Your task to perform on an android device: check storage Image 0: 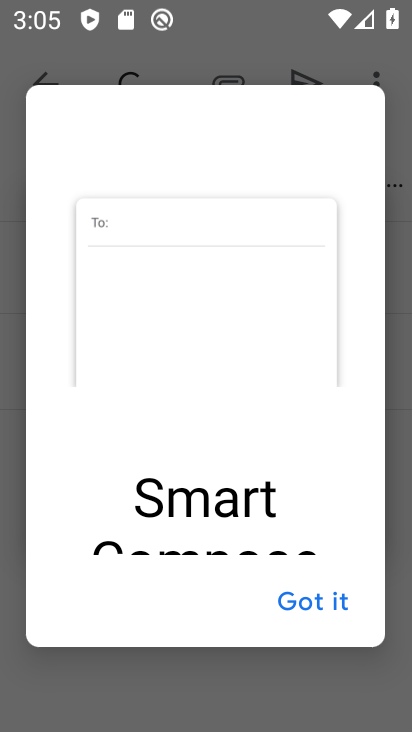
Step 0: press home button
Your task to perform on an android device: check storage Image 1: 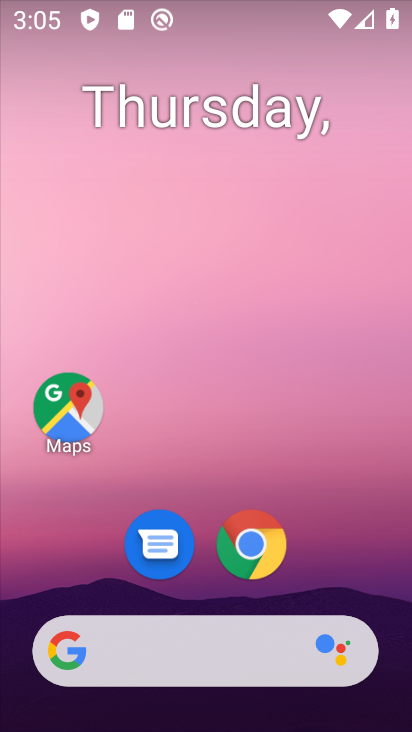
Step 1: drag from (333, 601) to (341, 15)
Your task to perform on an android device: check storage Image 2: 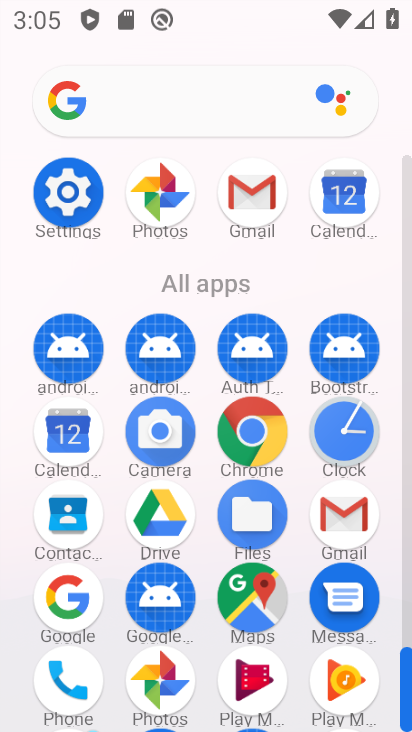
Step 2: click (83, 194)
Your task to perform on an android device: check storage Image 3: 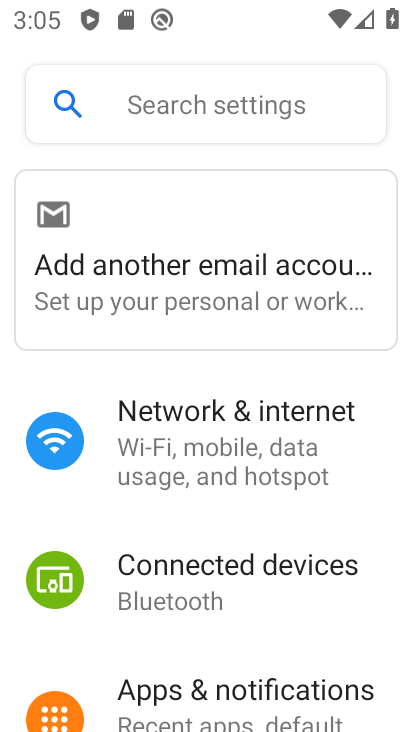
Step 3: drag from (288, 568) to (232, 182)
Your task to perform on an android device: check storage Image 4: 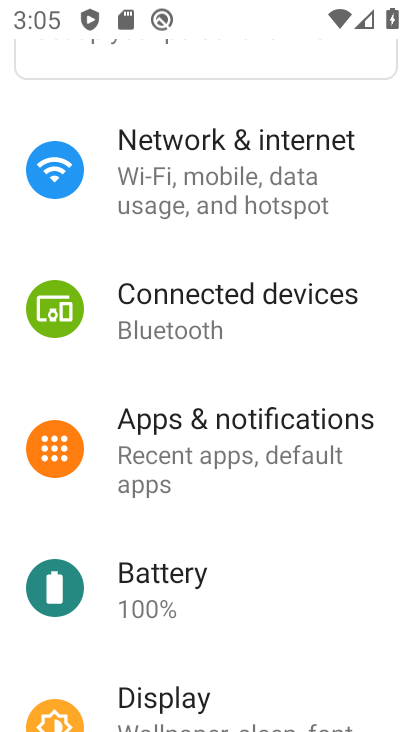
Step 4: drag from (162, 674) to (160, 146)
Your task to perform on an android device: check storage Image 5: 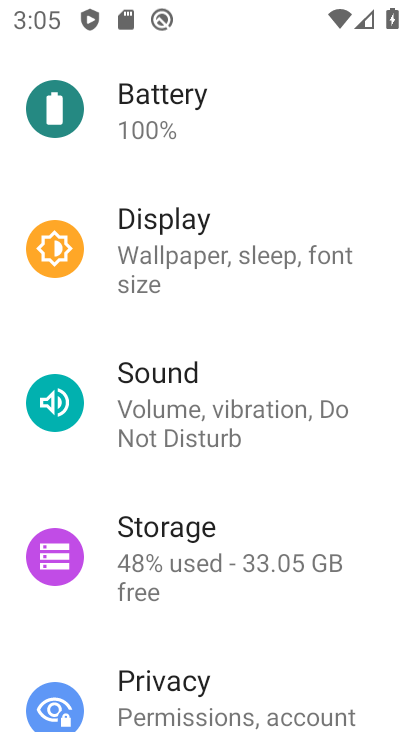
Step 5: click (202, 530)
Your task to perform on an android device: check storage Image 6: 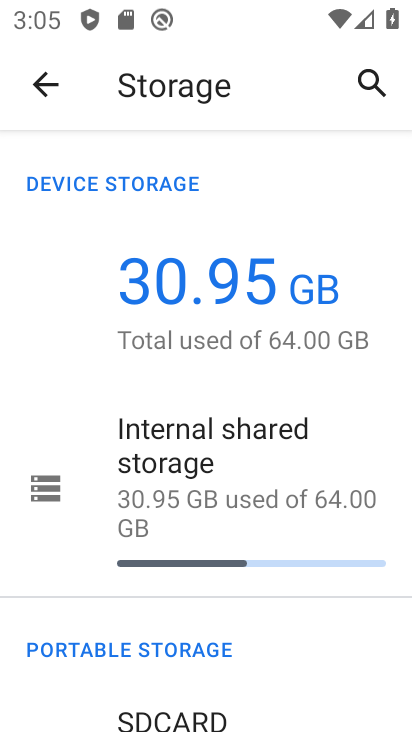
Step 6: task complete